Your task to perform on an android device: Show me recent news Image 0: 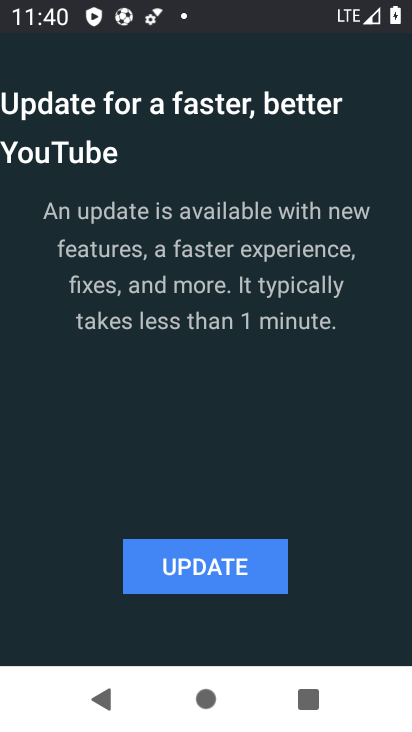
Step 0: press home button
Your task to perform on an android device: Show me recent news Image 1: 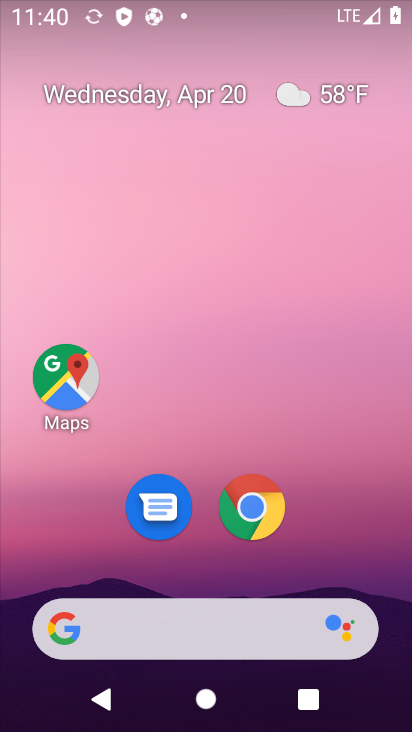
Step 1: task complete